Your task to perform on an android device: toggle translation in the chrome app Image 0: 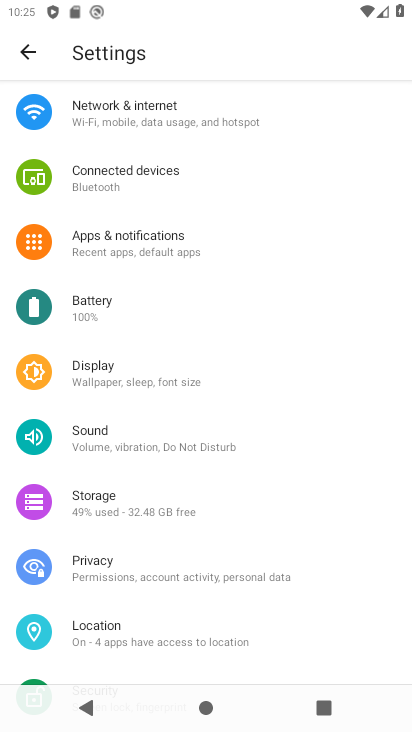
Step 0: press home button
Your task to perform on an android device: toggle translation in the chrome app Image 1: 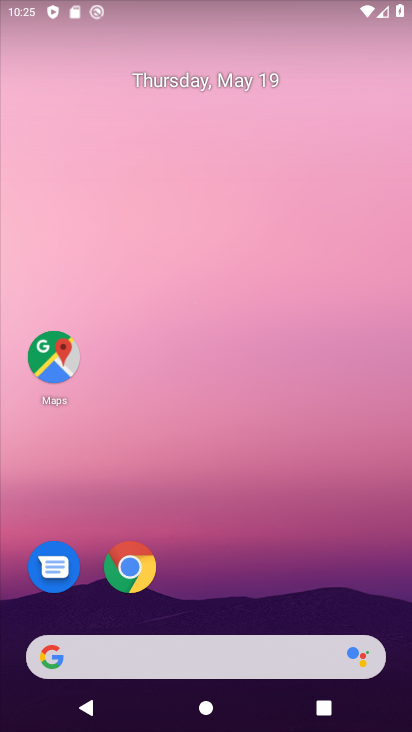
Step 1: click (124, 566)
Your task to perform on an android device: toggle translation in the chrome app Image 2: 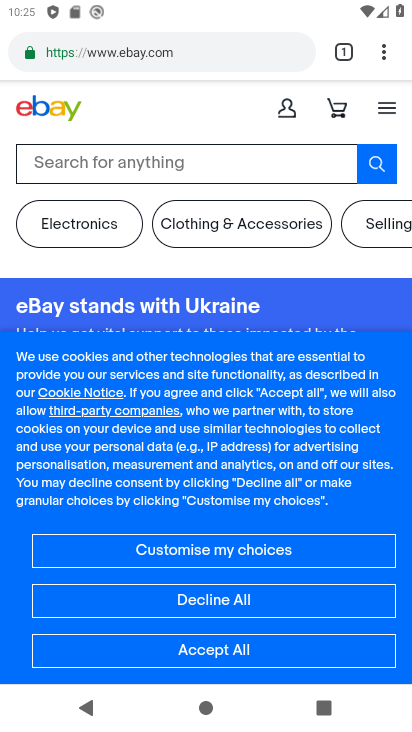
Step 2: click (380, 59)
Your task to perform on an android device: toggle translation in the chrome app Image 3: 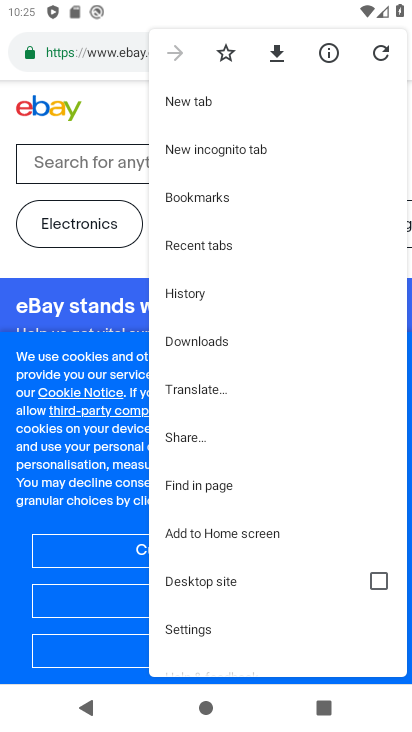
Step 3: click (207, 634)
Your task to perform on an android device: toggle translation in the chrome app Image 4: 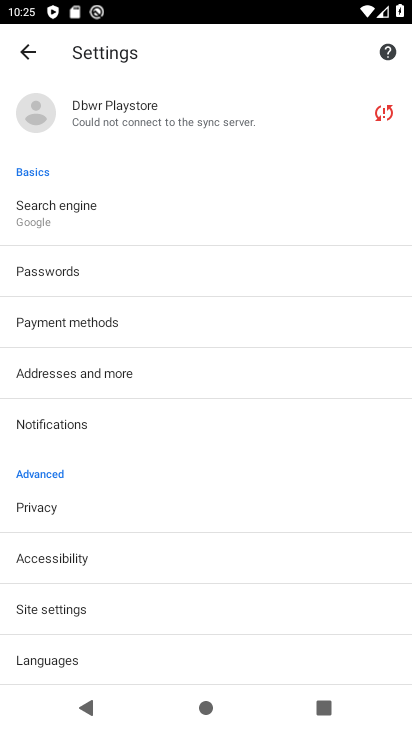
Step 4: click (64, 655)
Your task to perform on an android device: toggle translation in the chrome app Image 5: 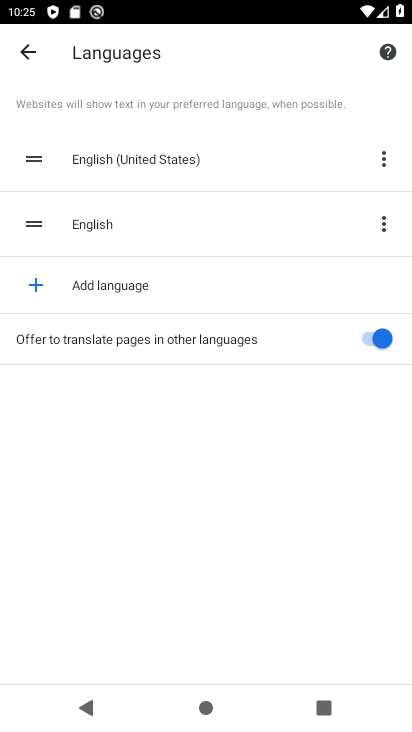
Step 5: click (364, 335)
Your task to perform on an android device: toggle translation in the chrome app Image 6: 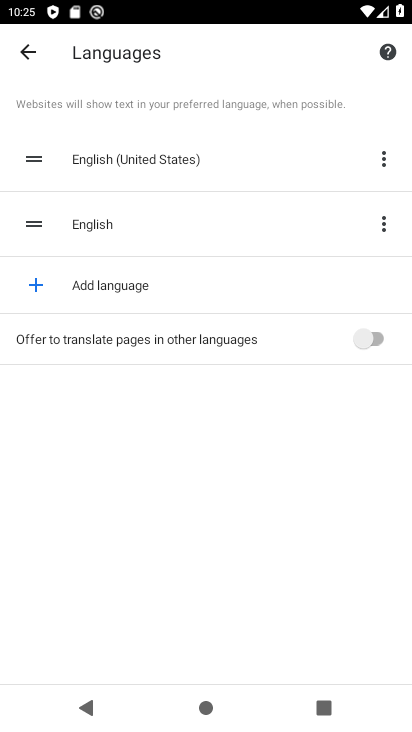
Step 6: task complete